Your task to perform on an android device: Open privacy settings Image 0: 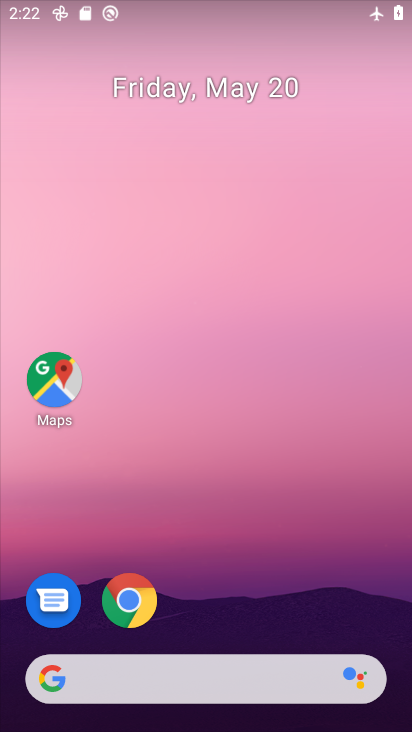
Step 0: drag from (285, 559) to (211, 13)
Your task to perform on an android device: Open privacy settings Image 1: 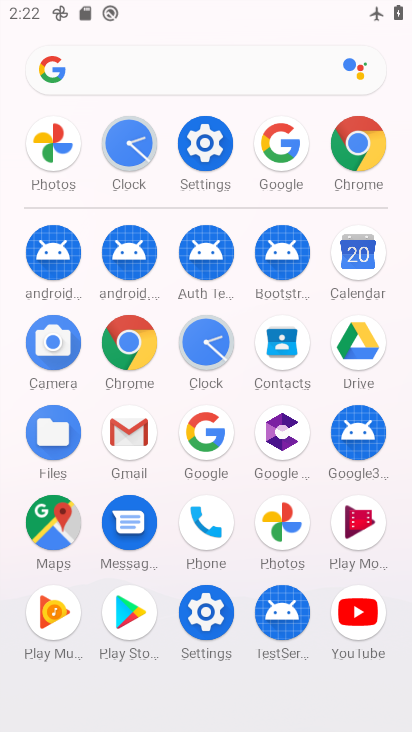
Step 1: click (207, 139)
Your task to perform on an android device: Open privacy settings Image 2: 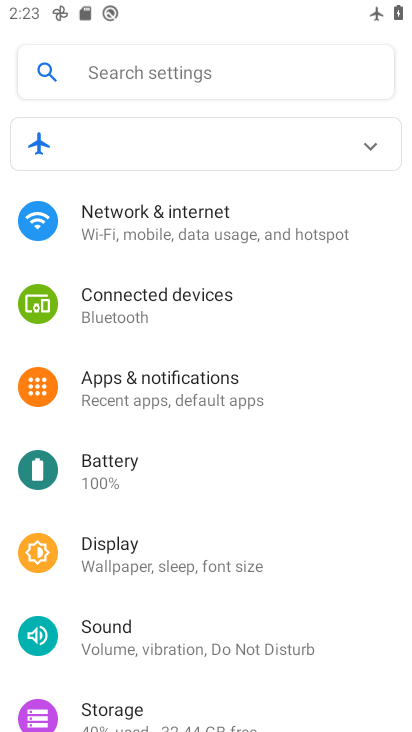
Step 2: drag from (217, 671) to (249, 199)
Your task to perform on an android device: Open privacy settings Image 3: 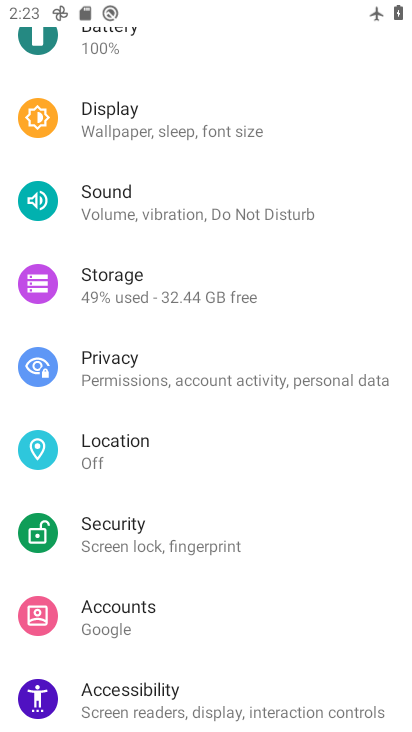
Step 3: click (194, 355)
Your task to perform on an android device: Open privacy settings Image 4: 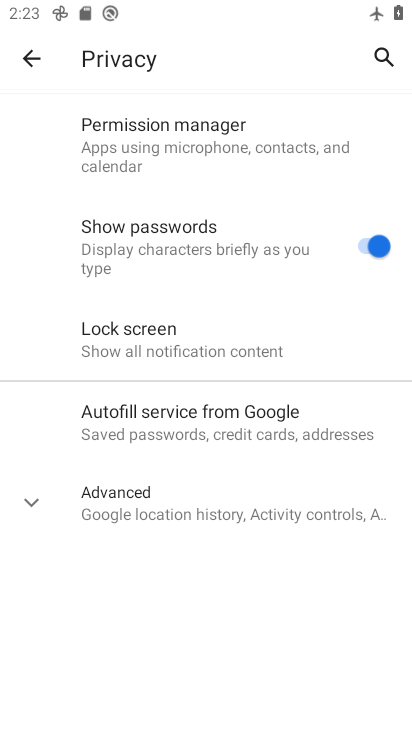
Step 4: task complete